Your task to perform on an android device: open chrome and create a bookmark for the current page Image 0: 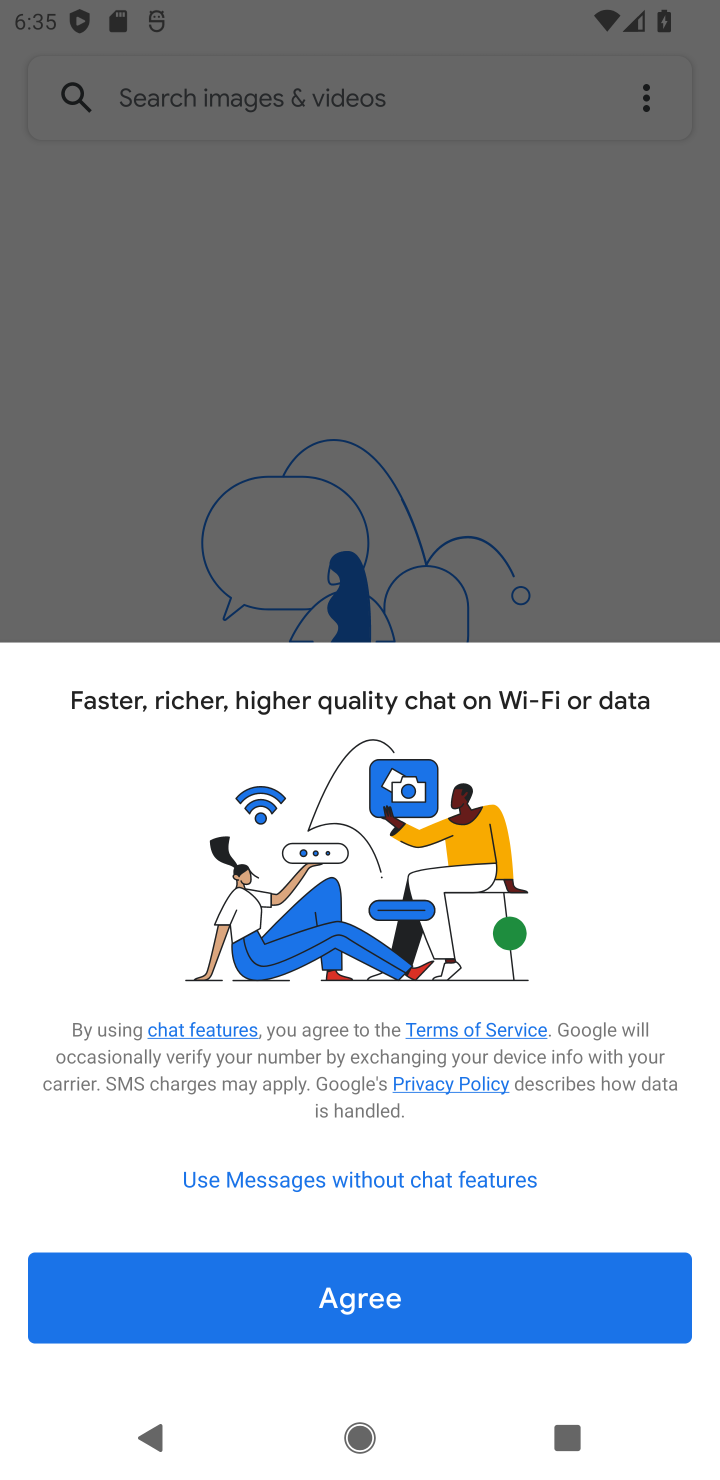
Step 0: press home button
Your task to perform on an android device: open chrome and create a bookmark for the current page Image 1: 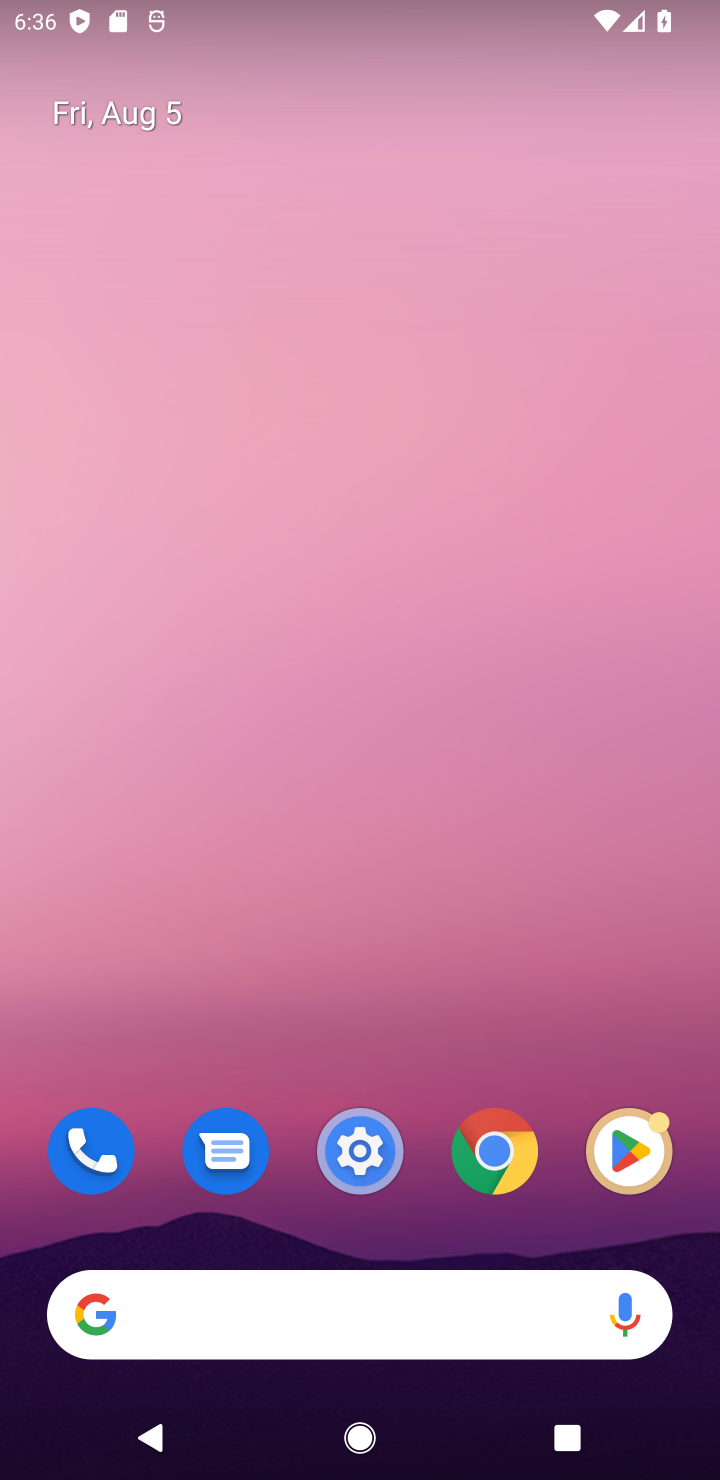
Step 1: click (503, 1134)
Your task to perform on an android device: open chrome and create a bookmark for the current page Image 2: 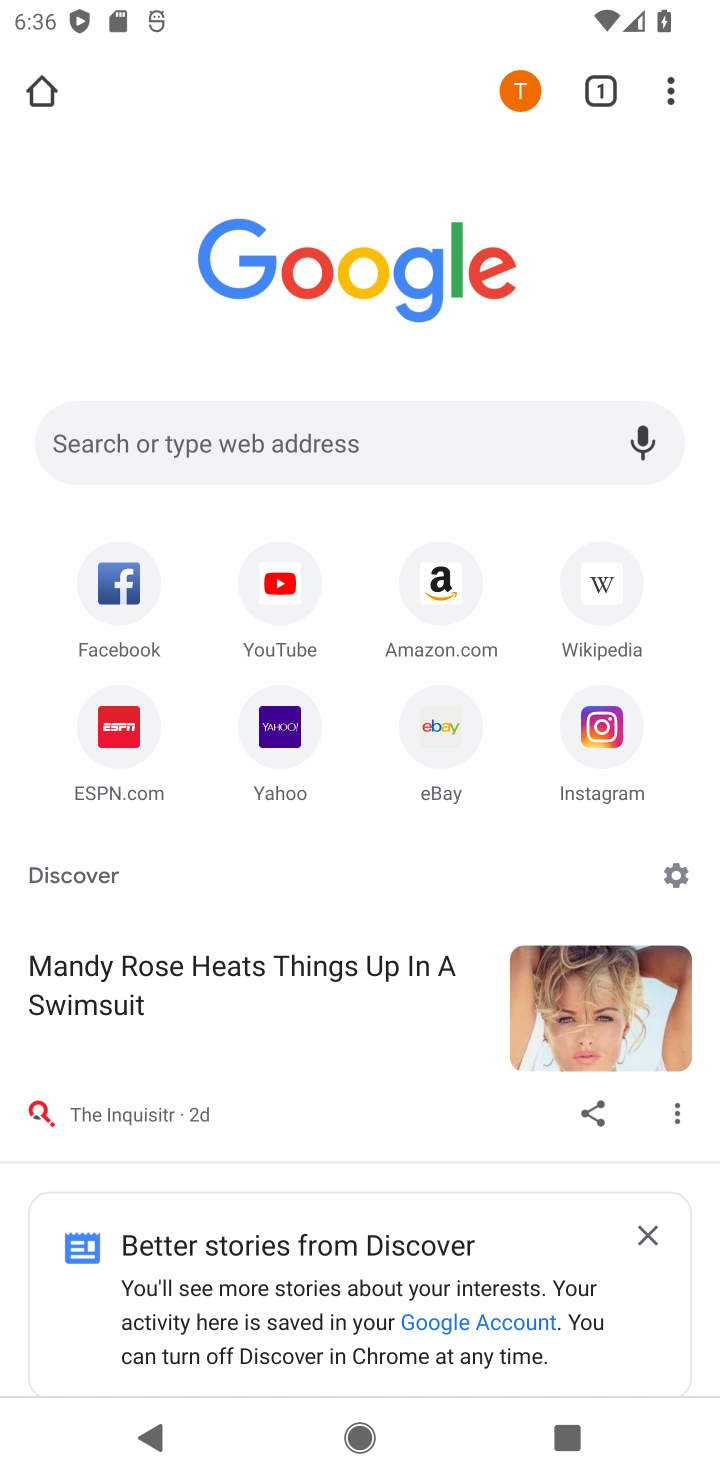
Step 2: click (665, 74)
Your task to perform on an android device: open chrome and create a bookmark for the current page Image 3: 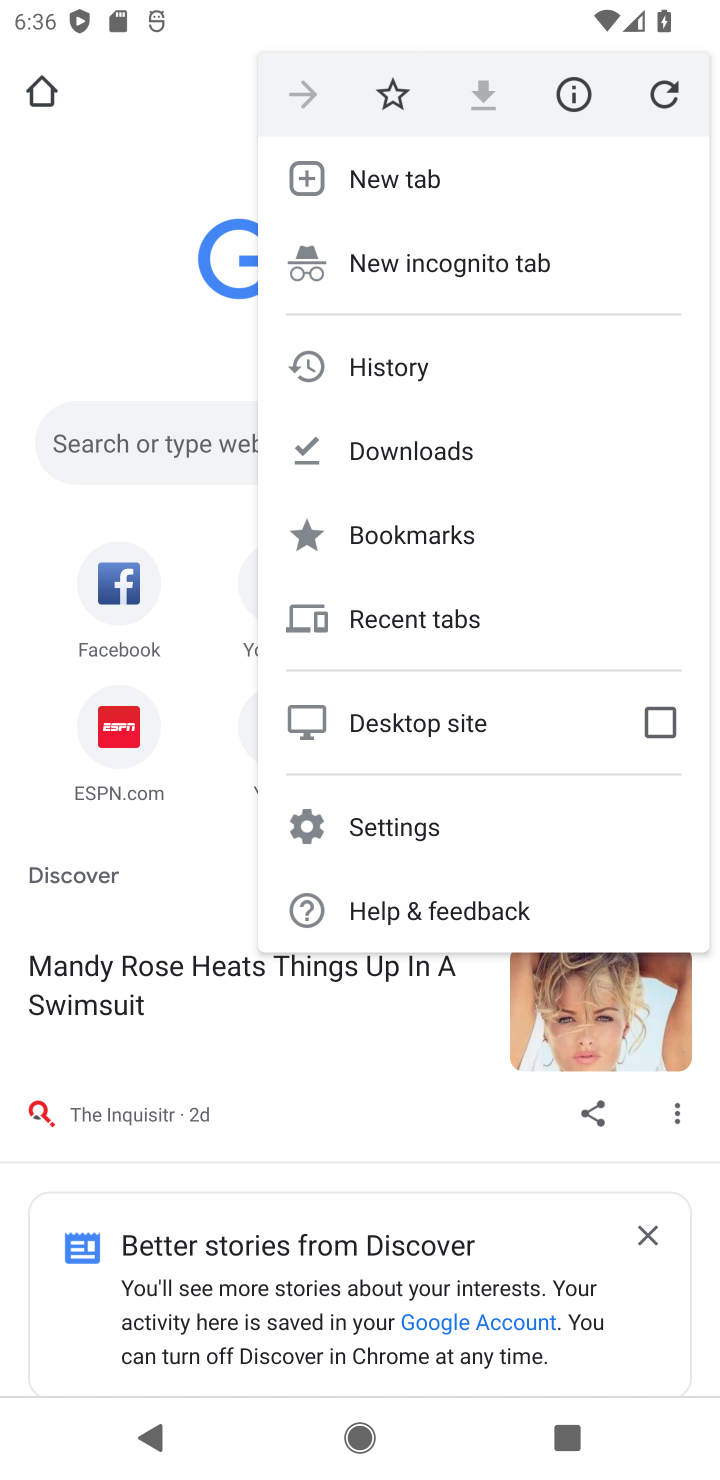
Step 3: click (383, 95)
Your task to perform on an android device: open chrome and create a bookmark for the current page Image 4: 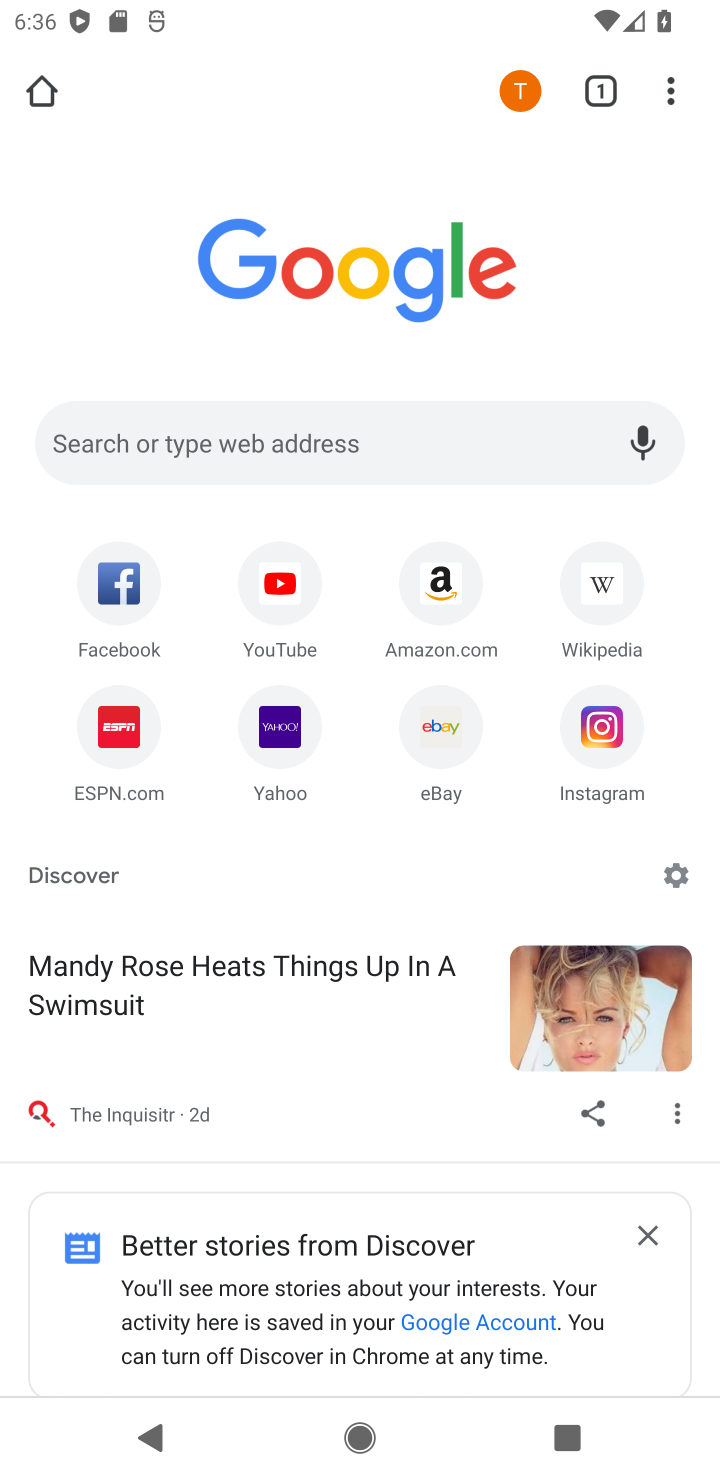
Step 4: task complete